Your task to perform on an android device: turn off translation in the chrome app Image 0: 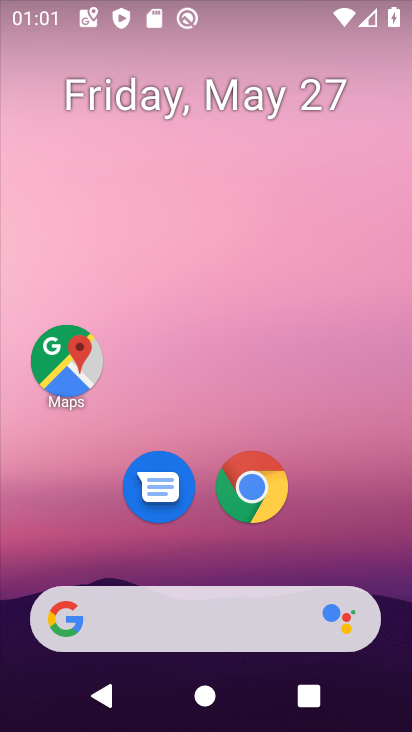
Step 0: click (252, 480)
Your task to perform on an android device: turn off translation in the chrome app Image 1: 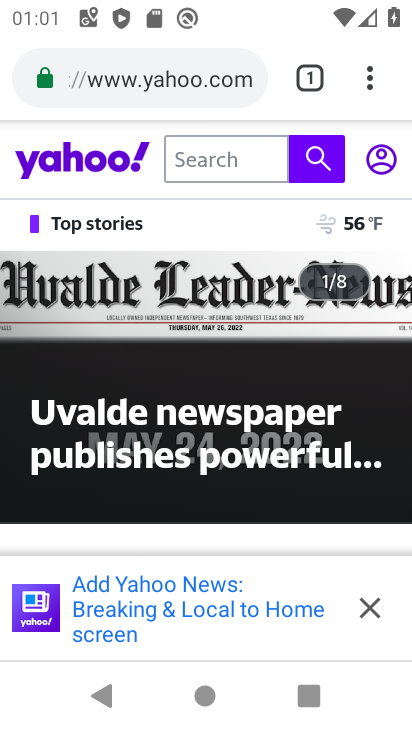
Step 1: click (367, 80)
Your task to perform on an android device: turn off translation in the chrome app Image 2: 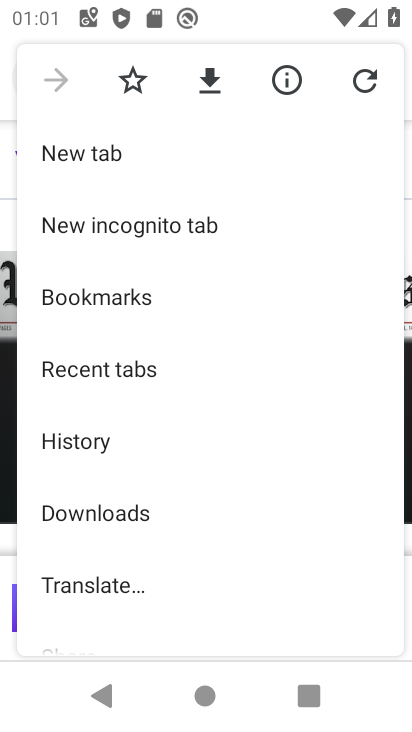
Step 2: drag from (209, 486) to (198, 224)
Your task to perform on an android device: turn off translation in the chrome app Image 3: 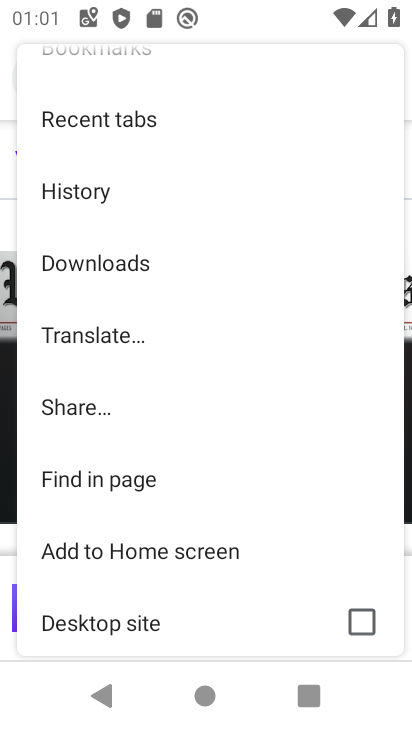
Step 3: drag from (196, 591) to (212, 205)
Your task to perform on an android device: turn off translation in the chrome app Image 4: 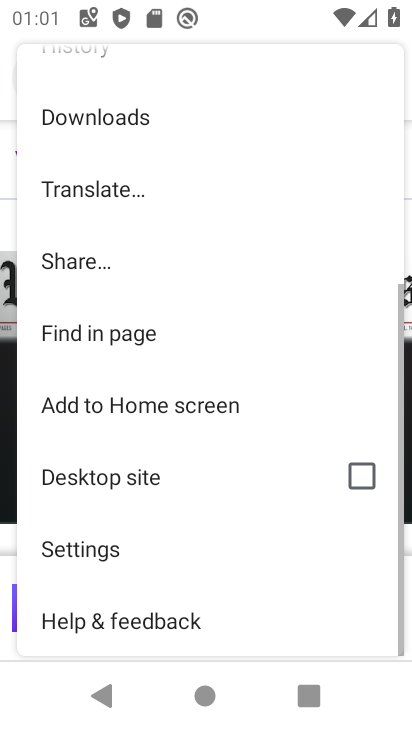
Step 4: click (117, 553)
Your task to perform on an android device: turn off translation in the chrome app Image 5: 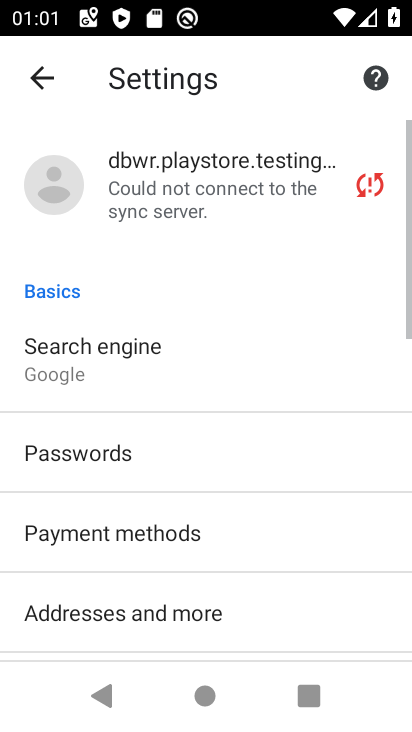
Step 5: drag from (215, 523) to (218, 206)
Your task to perform on an android device: turn off translation in the chrome app Image 6: 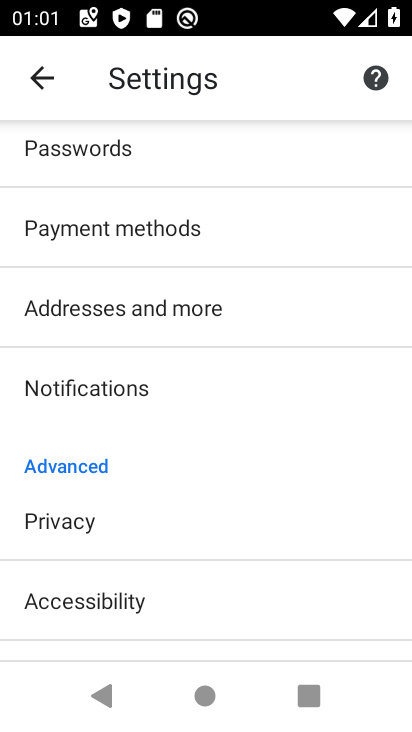
Step 6: drag from (201, 489) to (198, 173)
Your task to perform on an android device: turn off translation in the chrome app Image 7: 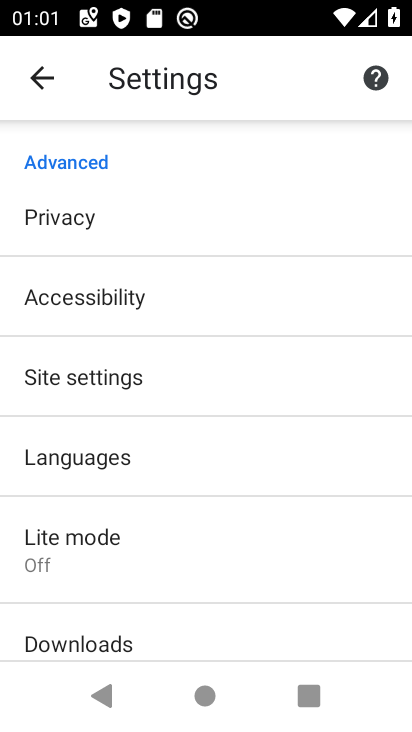
Step 7: click (113, 452)
Your task to perform on an android device: turn off translation in the chrome app Image 8: 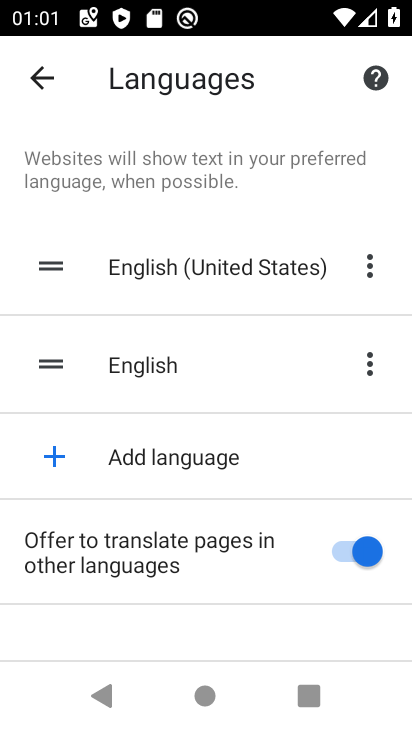
Step 8: click (352, 549)
Your task to perform on an android device: turn off translation in the chrome app Image 9: 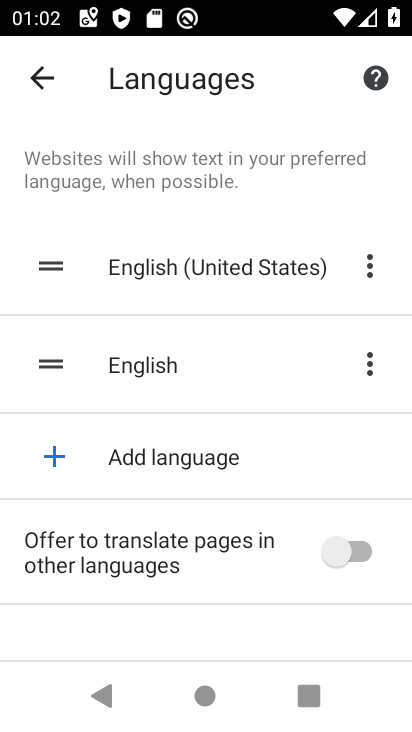
Step 9: task complete